Your task to perform on an android device: Check out the new ikea catalog. Image 0: 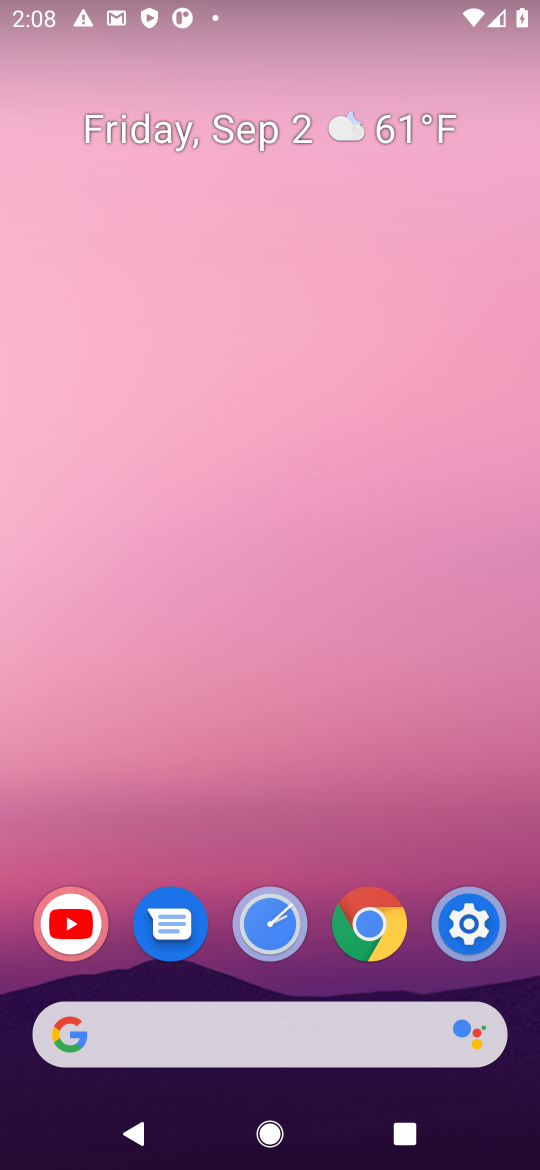
Step 0: press home button
Your task to perform on an android device: Check out the new ikea catalog. Image 1: 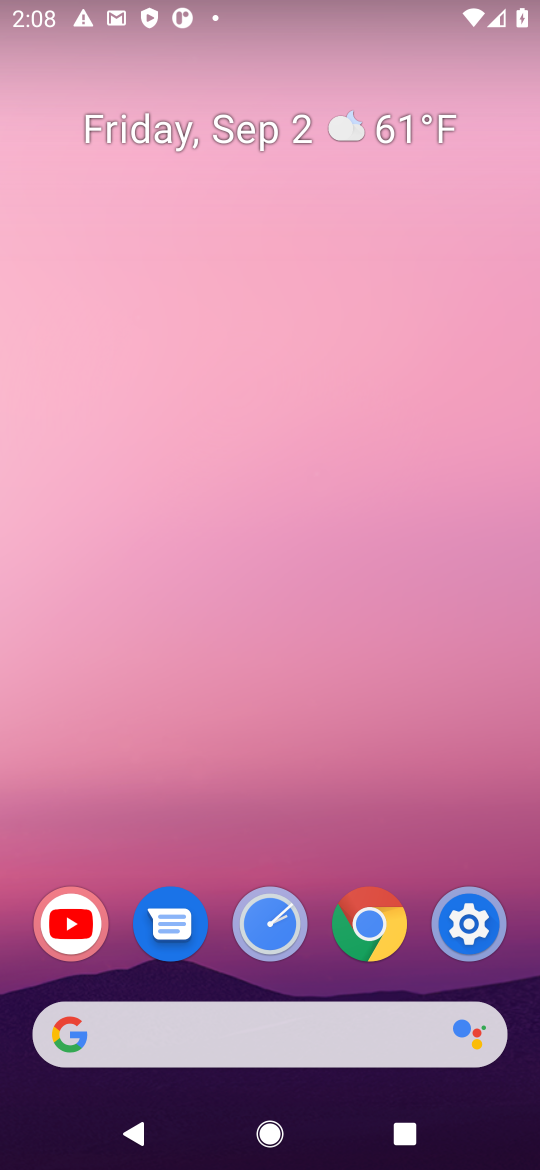
Step 1: click (369, 1028)
Your task to perform on an android device: Check out the new ikea catalog. Image 2: 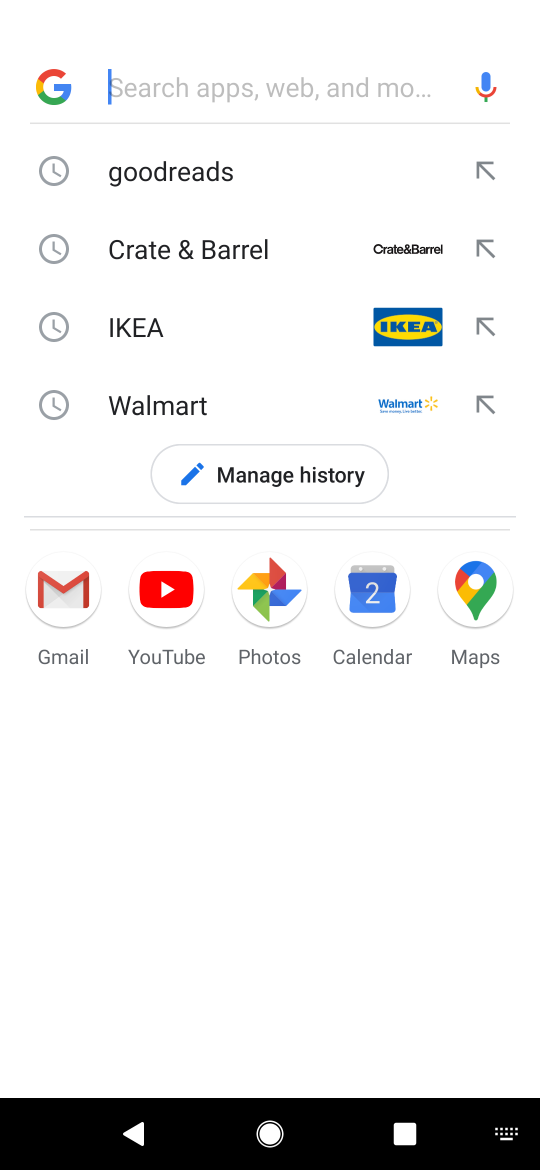
Step 2: click (152, 328)
Your task to perform on an android device: Check out the new ikea catalog. Image 3: 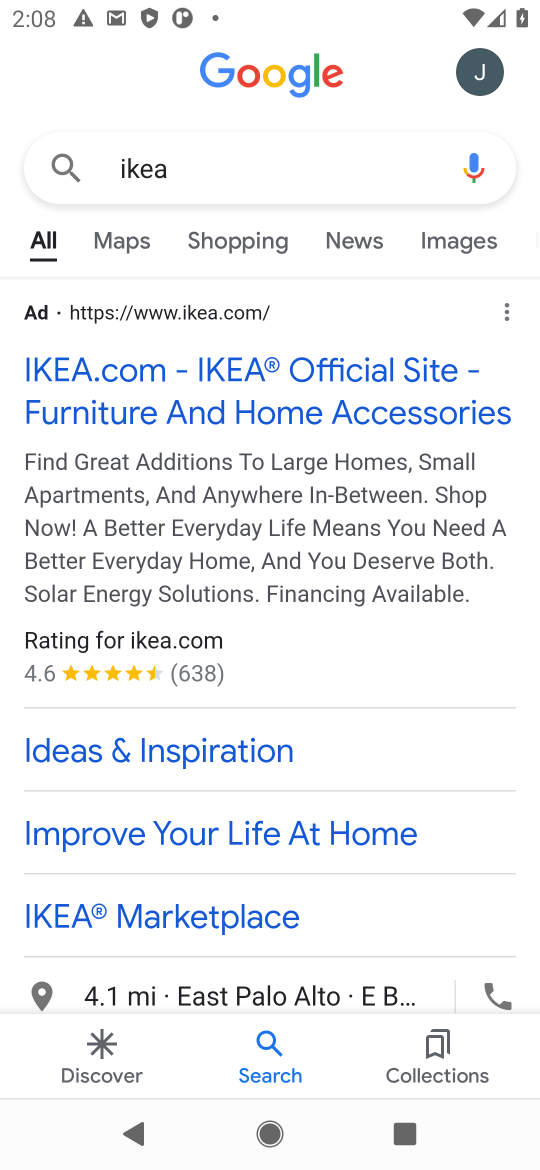
Step 3: click (402, 375)
Your task to perform on an android device: Check out the new ikea catalog. Image 4: 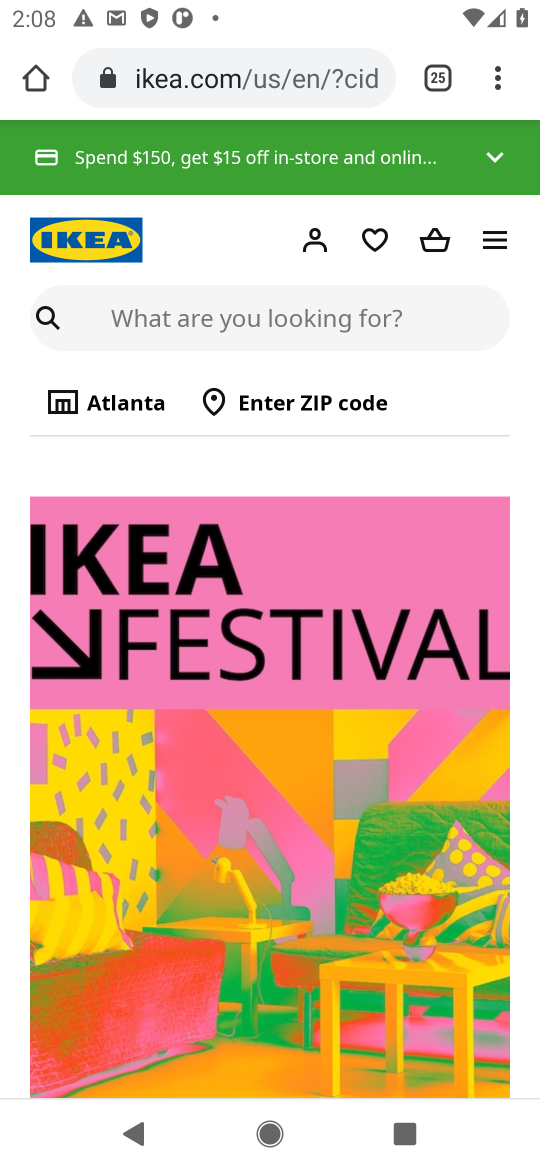
Step 4: click (299, 329)
Your task to perform on an android device: Check out the new ikea catalog. Image 5: 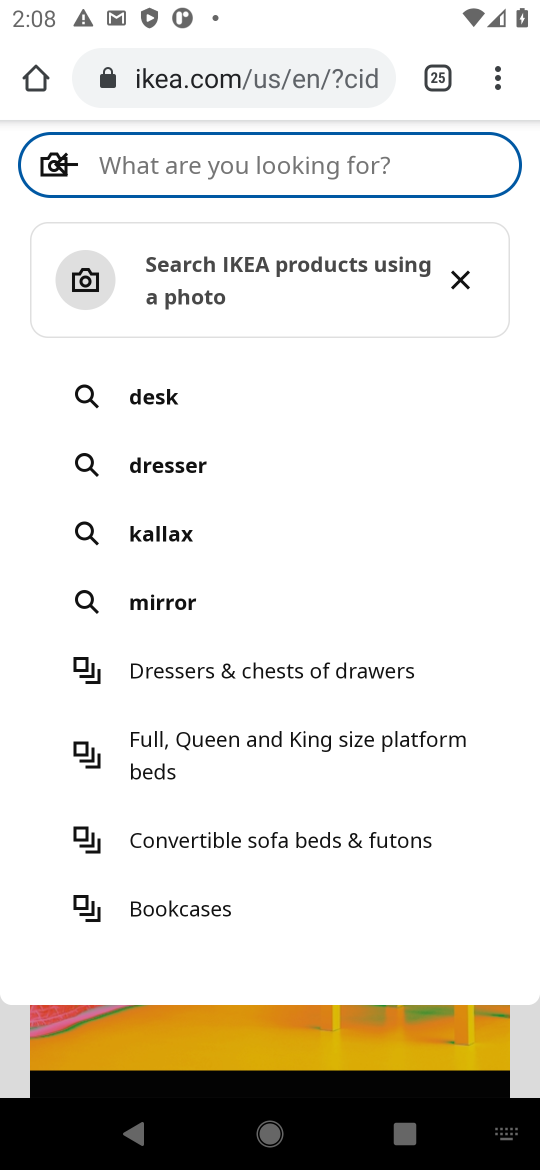
Step 5: type "catalog"
Your task to perform on an android device: Check out the new ikea catalog. Image 6: 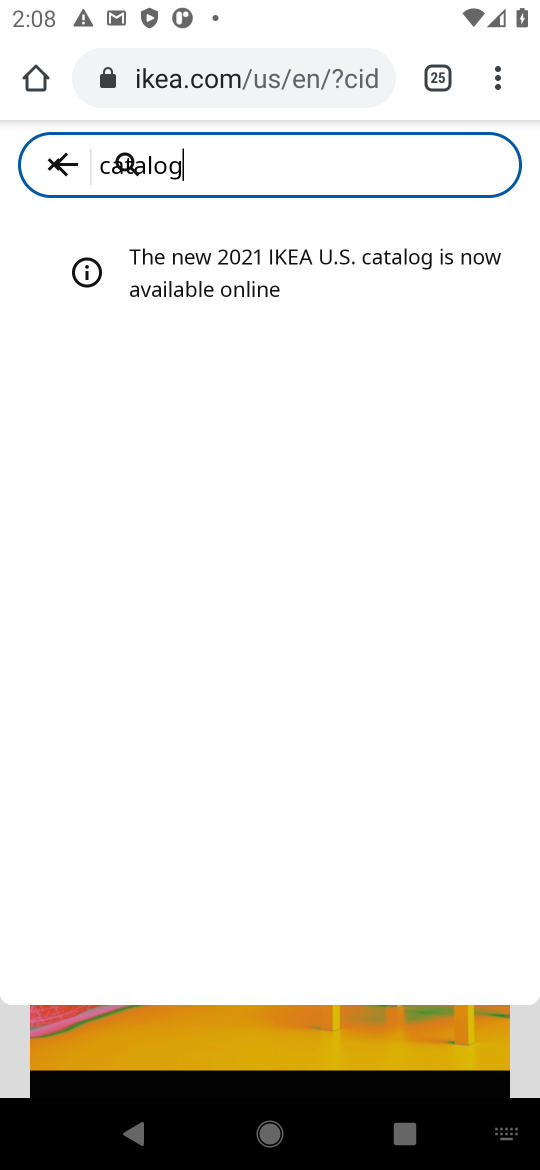
Step 6: click (42, 155)
Your task to perform on an android device: Check out the new ikea catalog. Image 7: 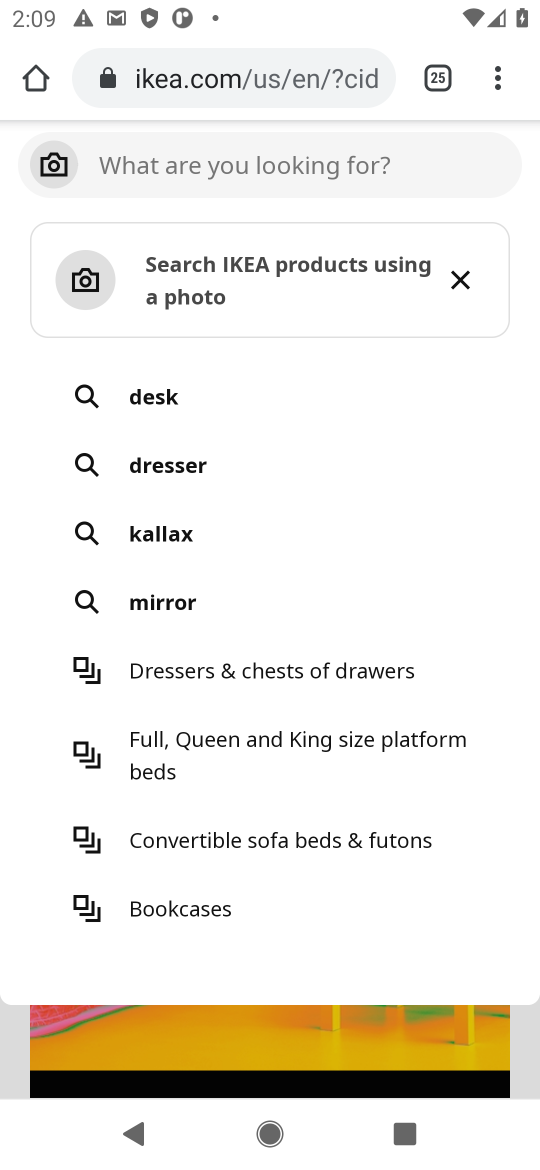
Step 7: task complete